Your task to perform on an android device: turn pop-ups on in chrome Image 0: 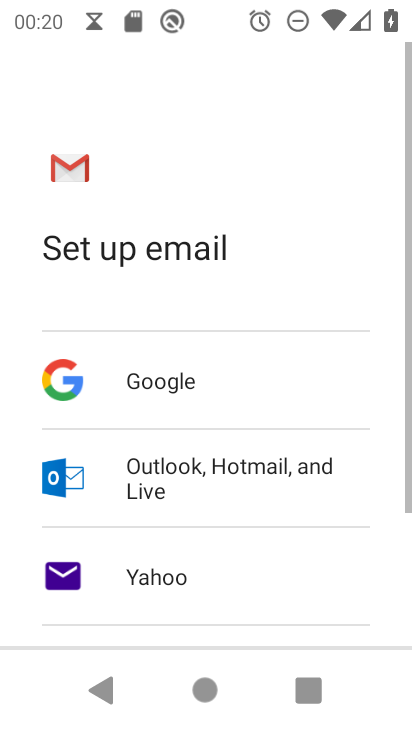
Step 0: press home button
Your task to perform on an android device: turn pop-ups on in chrome Image 1: 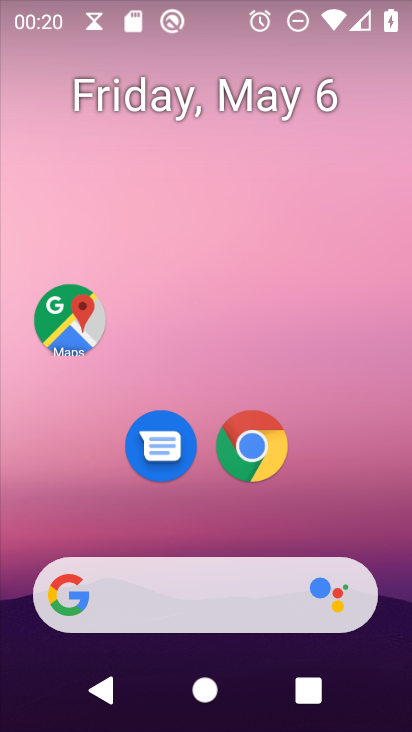
Step 1: drag from (210, 632) to (92, 147)
Your task to perform on an android device: turn pop-ups on in chrome Image 2: 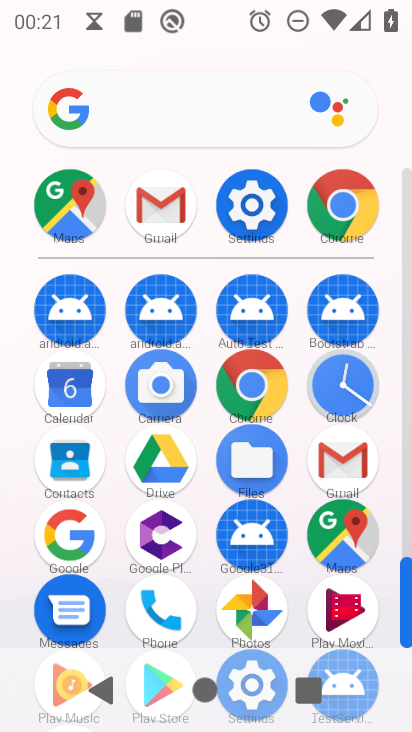
Step 2: click (353, 191)
Your task to perform on an android device: turn pop-ups on in chrome Image 3: 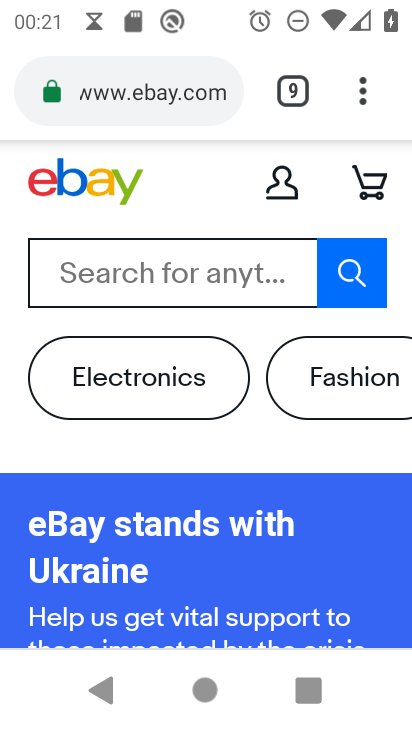
Step 3: click (368, 106)
Your task to perform on an android device: turn pop-ups on in chrome Image 4: 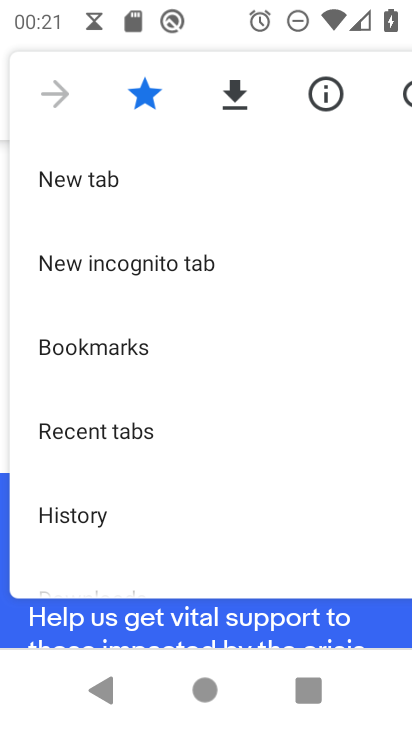
Step 4: drag from (183, 485) to (177, 283)
Your task to perform on an android device: turn pop-ups on in chrome Image 5: 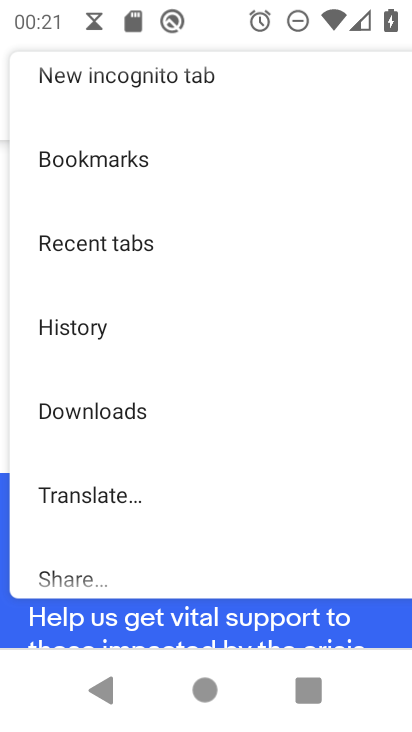
Step 5: drag from (99, 554) to (120, 196)
Your task to perform on an android device: turn pop-ups on in chrome Image 6: 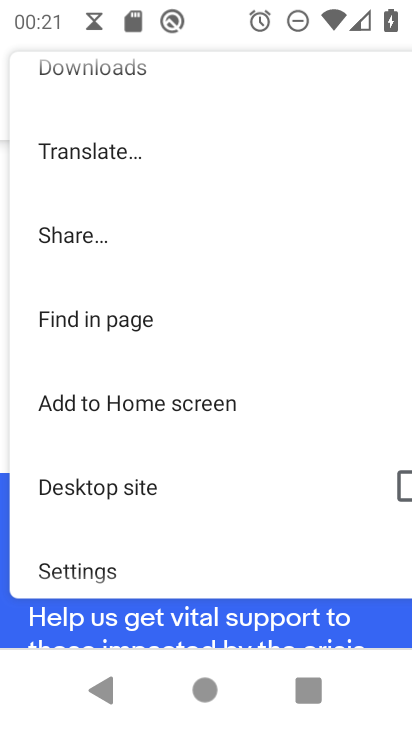
Step 6: click (109, 564)
Your task to perform on an android device: turn pop-ups on in chrome Image 7: 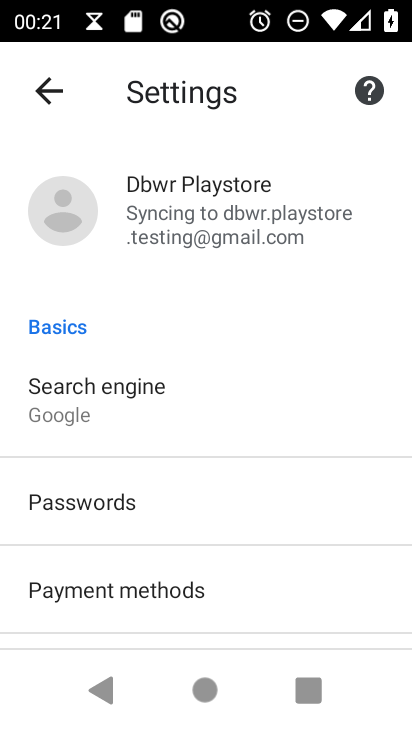
Step 7: drag from (243, 575) to (244, 275)
Your task to perform on an android device: turn pop-ups on in chrome Image 8: 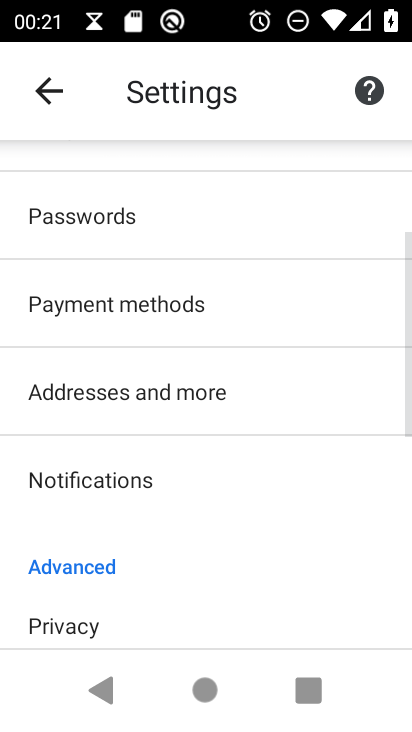
Step 8: drag from (202, 567) to (210, 297)
Your task to perform on an android device: turn pop-ups on in chrome Image 9: 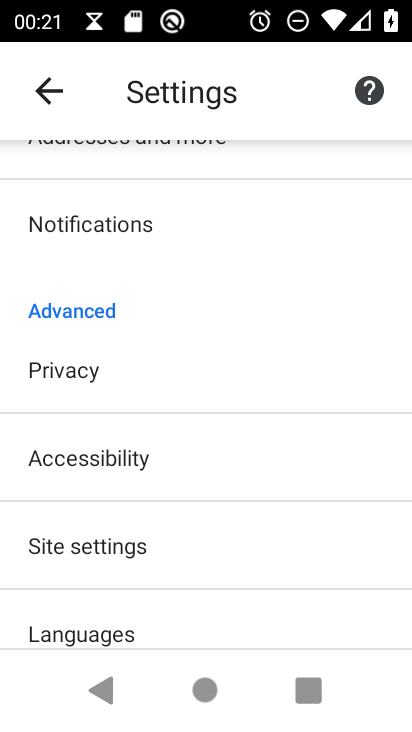
Step 9: click (143, 543)
Your task to perform on an android device: turn pop-ups on in chrome Image 10: 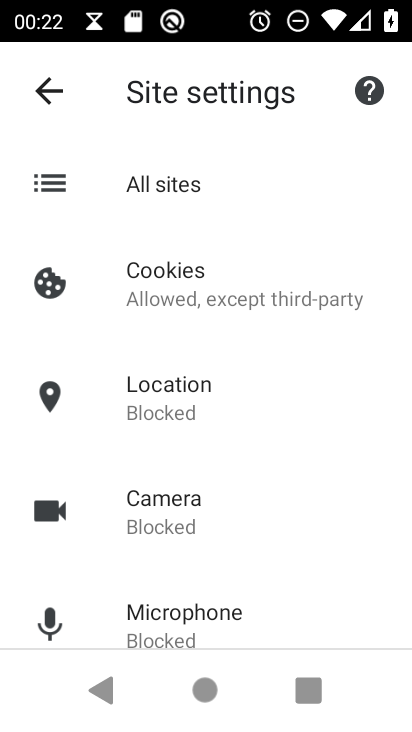
Step 10: drag from (163, 552) to (227, 364)
Your task to perform on an android device: turn pop-ups on in chrome Image 11: 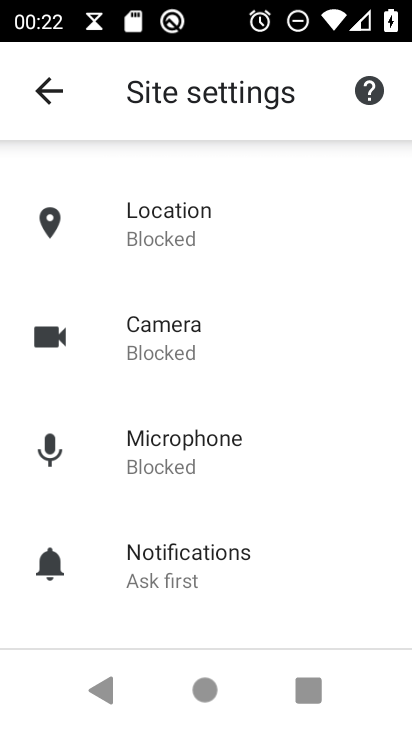
Step 11: drag from (189, 501) to (245, 254)
Your task to perform on an android device: turn pop-ups on in chrome Image 12: 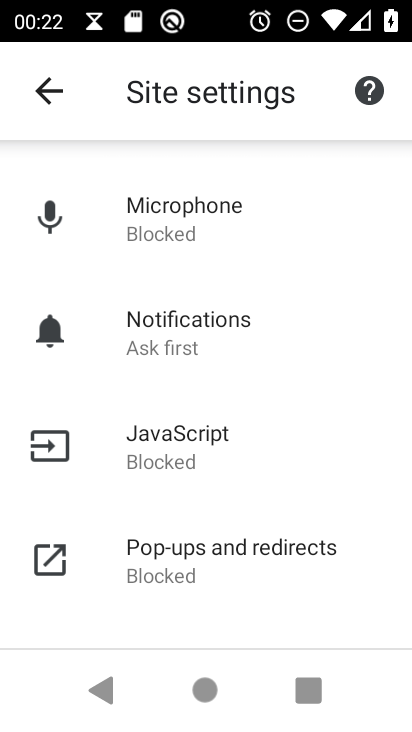
Step 12: click (157, 537)
Your task to perform on an android device: turn pop-ups on in chrome Image 13: 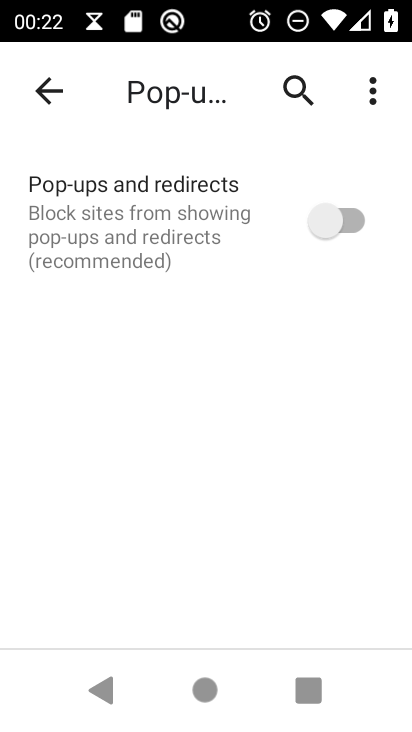
Step 13: click (351, 223)
Your task to perform on an android device: turn pop-ups on in chrome Image 14: 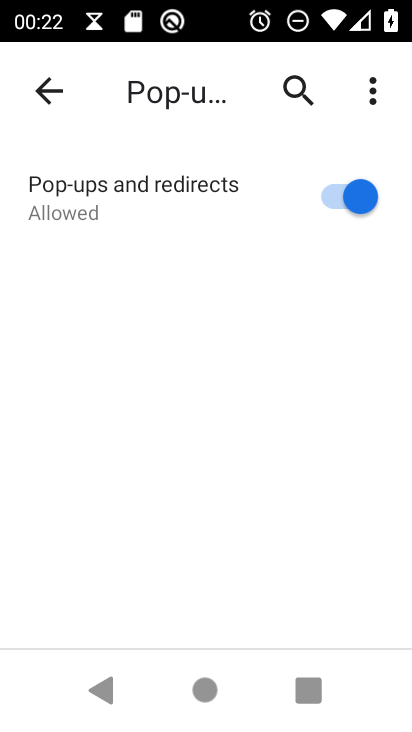
Step 14: task complete